Your task to perform on an android device: Open location settings Image 0: 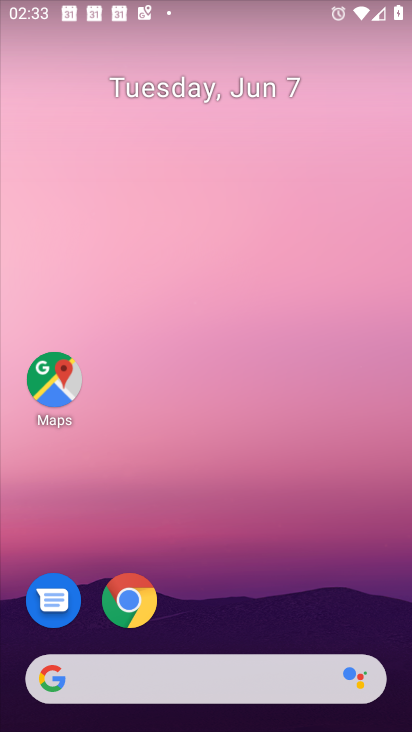
Step 0: drag from (181, 724) to (180, 316)
Your task to perform on an android device: Open location settings Image 1: 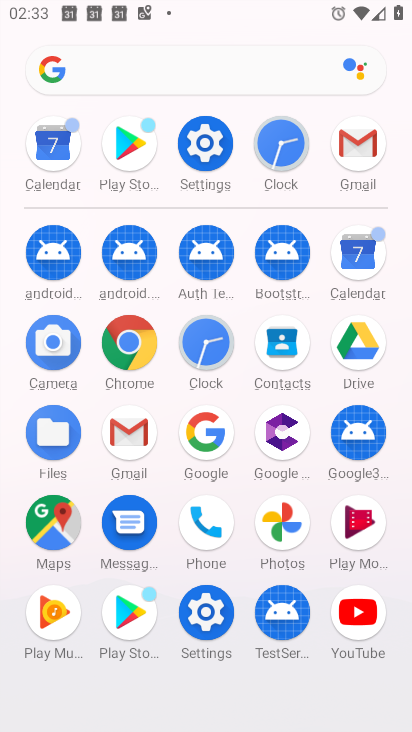
Step 1: click (198, 141)
Your task to perform on an android device: Open location settings Image 2: 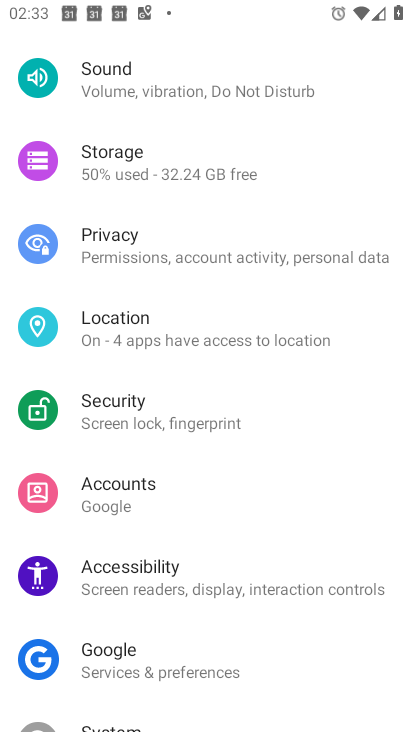
Step 2: click (119, 328)
Your task to perform on an android device: Open location settings Image 3: 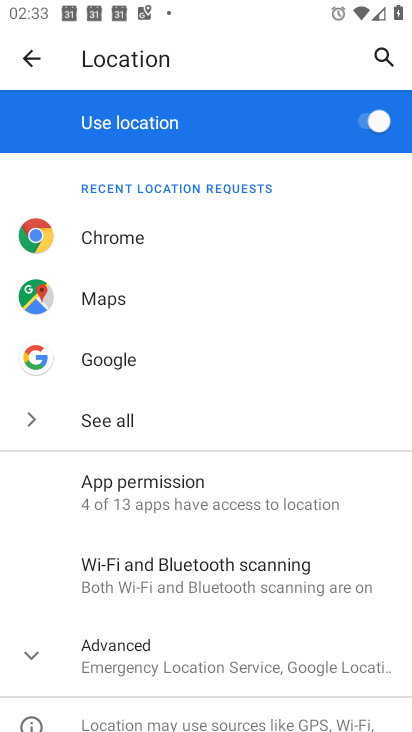
Step 3: task complete